Your task to perform on an android device: turn on showing notifications on the lock screen Image 0: 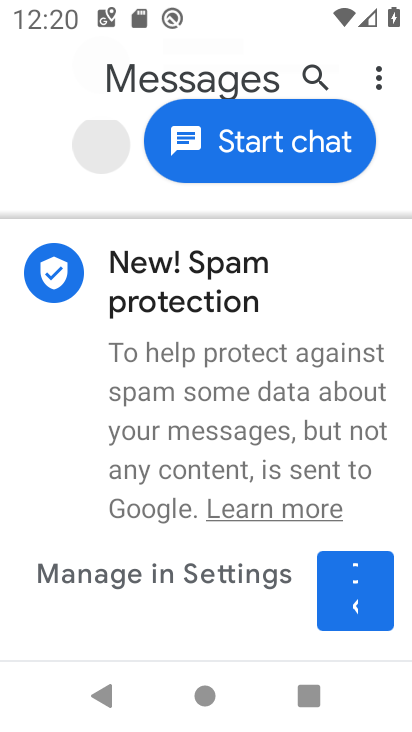
Step 0: press home button
Your task to perform on an android device: turn on showing notifications on the lock screen Image 1: 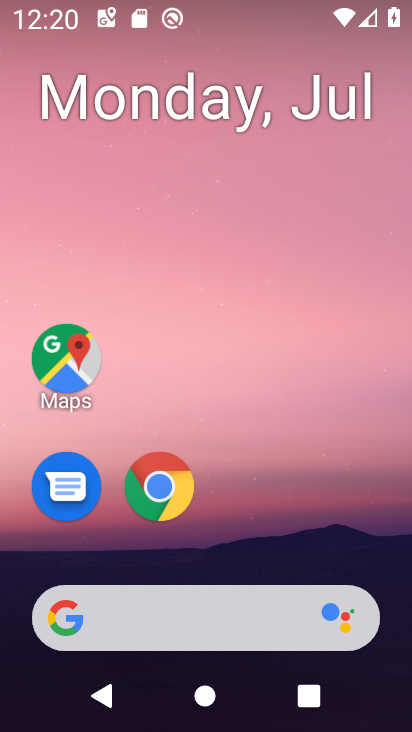
Step 1: drag from (356, 530) to (346, 105)
Your task to perform on an android device: turn on showing notifications on the lock screen Image 2: 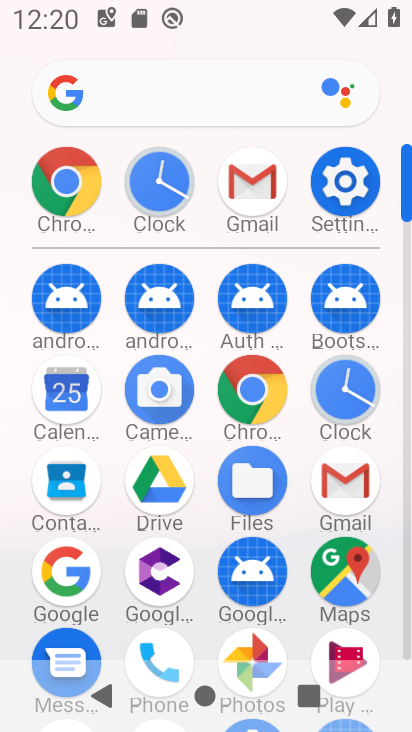
Step 2: click (343, 191)
Your task to perform on an android device: turn on showing notifications on the lock screen Image 3: 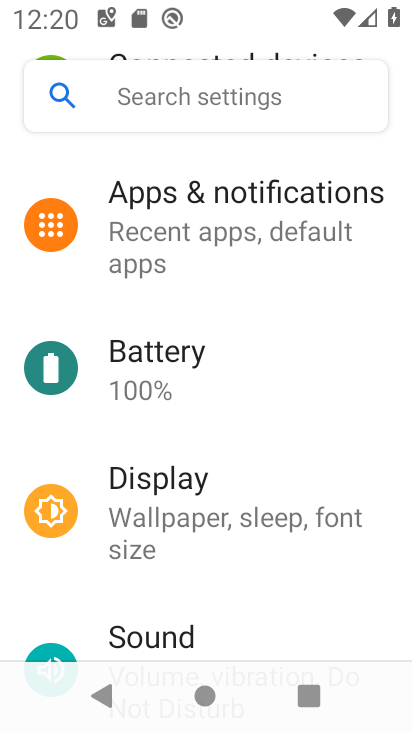
Step 3: drag from (324, 571) to (341, 454)
Your task to perform on an android device: turn on showing notifications on the lock screen Image 4: 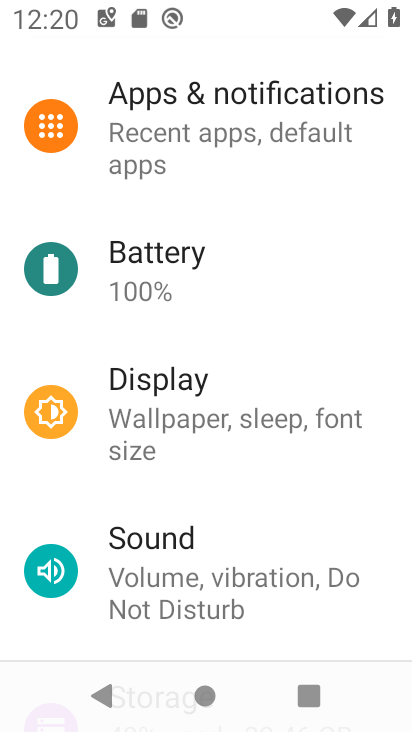
Step 4: drag from (350, 607) to (360, 456)
Your task to perform on an android device: turn on showing notifications on the lock screen Image 5: 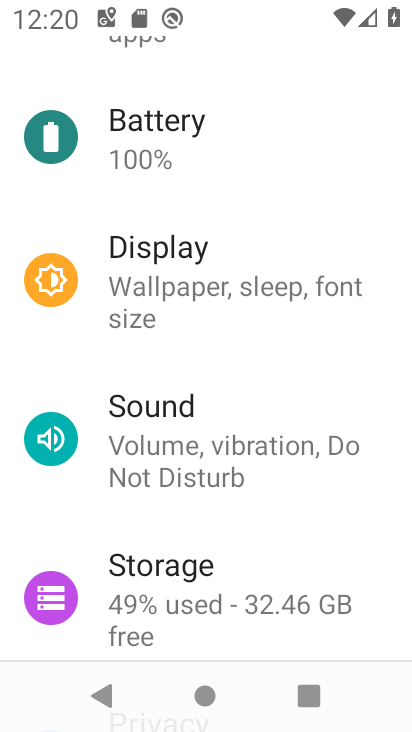
Step 5: drag from (352, 604) to (371, 461)
Your task to perform on an android device: turn on showing notifications on the lock screen Image 6: 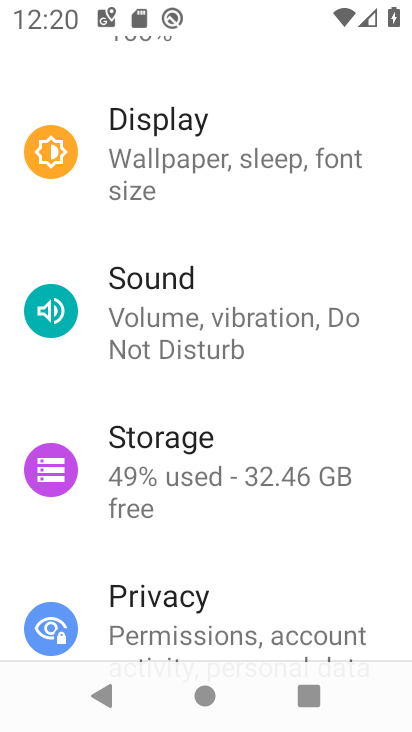
Step 6: drag from (346, 608) to (355, 471)
Your task to perform on an android device: turn on showing notifications on the lock screen Image 7: 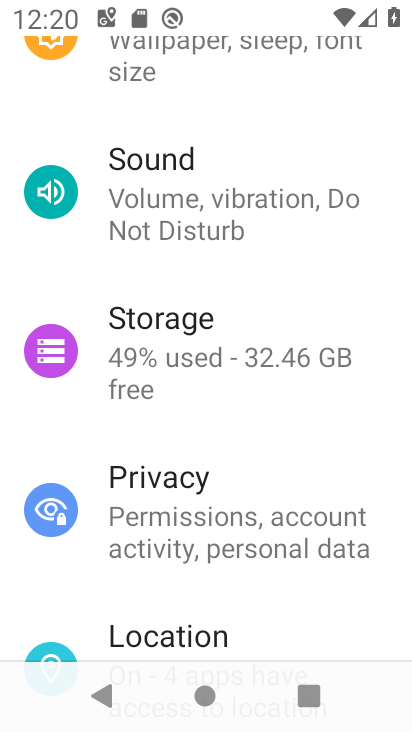
Step 7: drag from (344, 623) to (365, 446)
Your task to perform on an android device: turn on showing notifications on the lock screen Image 8: 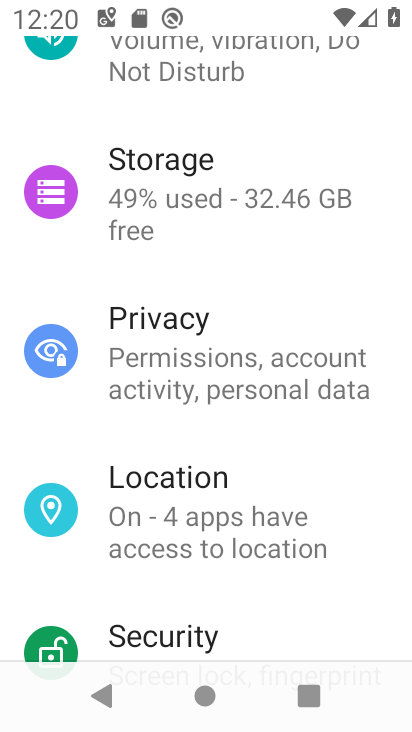
Step 8: drag from (365, 590) to (360, 483)
Your task to perform on an android device: turn on showing notifications on the lock screen Image 9: 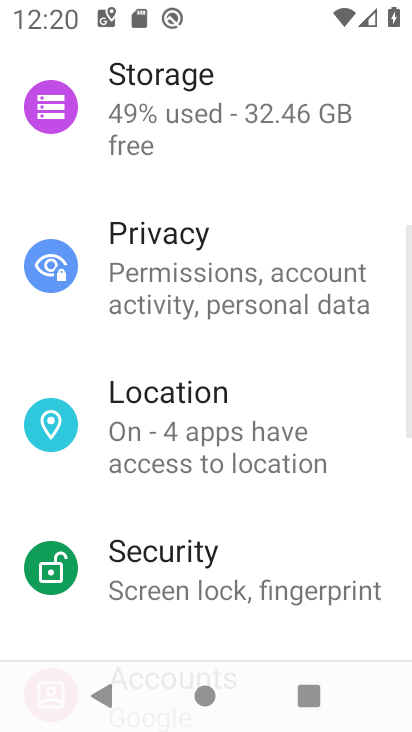
Step 9: drag from (353, 608) to (354, 492)
Your task to perform on an android device: turn on showing notifications on the lock screen Image 10: 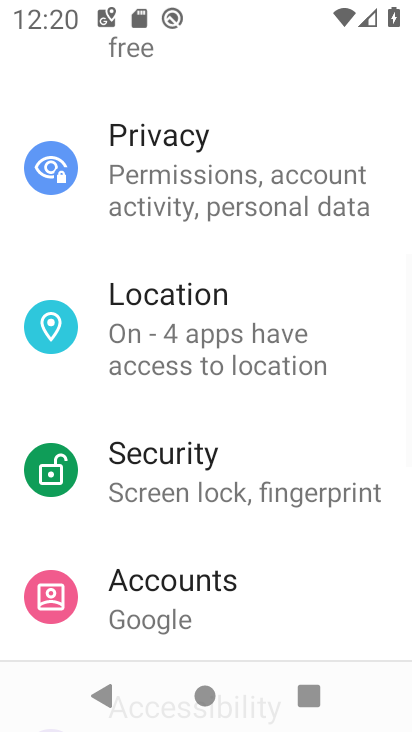
Step 10: drag from (352, 611) to (342, 482)
Your task to perform on an android device: turn on showing notifications on the lock screen Image 11: 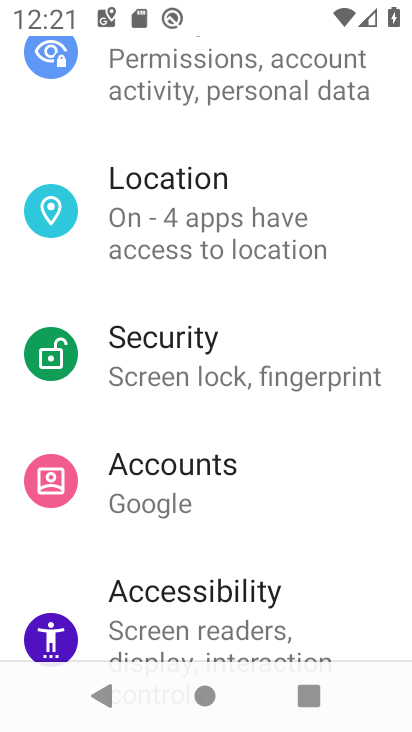
Step 11: drag from (341, 568) to (334, 410)
Your task to perform on an android device: turn on showing notifications on the lock screen Image 12: 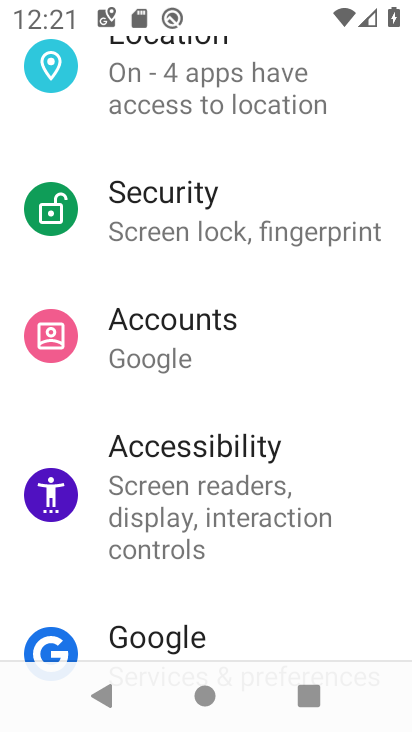
Step 12: drag from (334, 574) to (332, 397)
Your task to perform on an android device: turn on showing notifications on the lock screen Image 13: 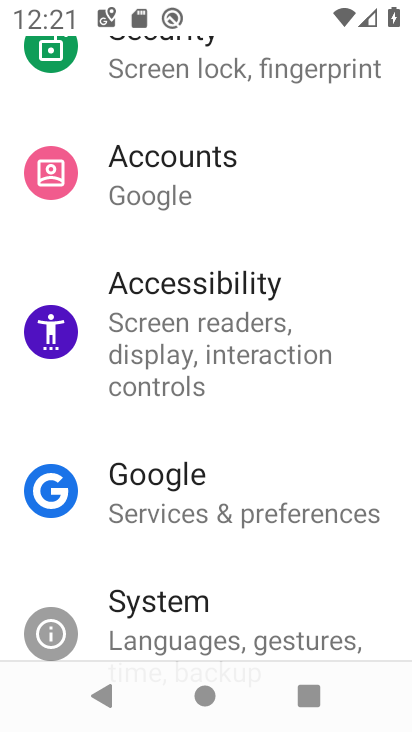
Step 13: drag from (323, 569) to (327, 415)
Your task to perform on an android device: turn on showing notifications on the lock screen Image 14: 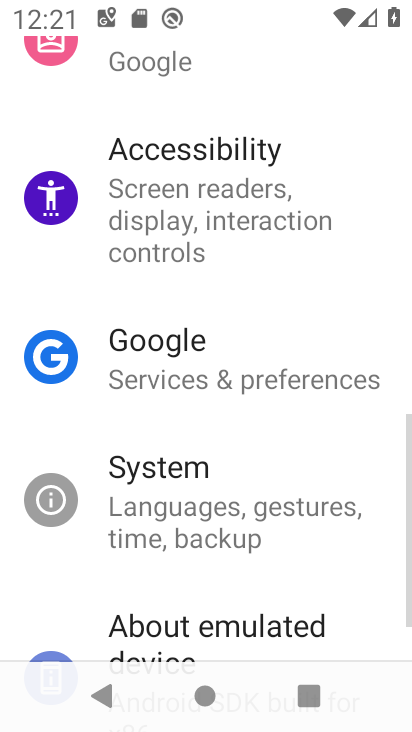
Step 14: click (339, 443)
Your task to perform on an android device: turn on showing notifications on the lock screen Image 15: 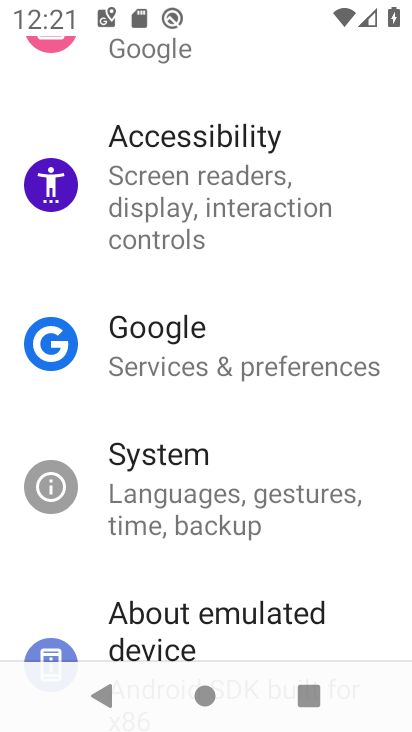
Step 15: drag from (341, 261) to (342, 382)
Your task to perform on an android device: turn on showing notifications on the lock screen Image 16: 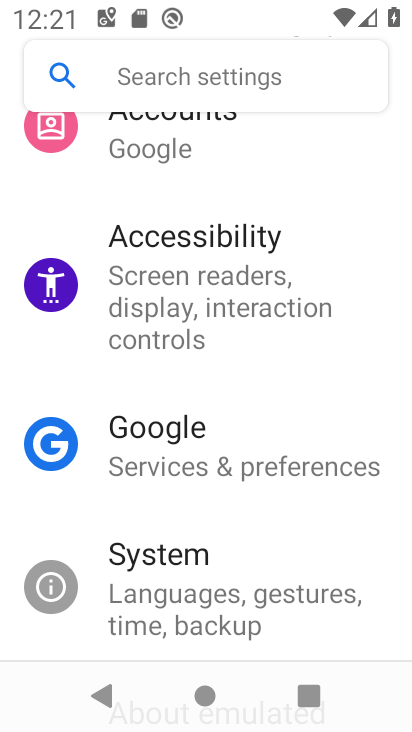
Step 16: drag from (356, 224) to (359, 363)
Your task to perform on an android device: turn on showing notifications on the lock screen Image 17: 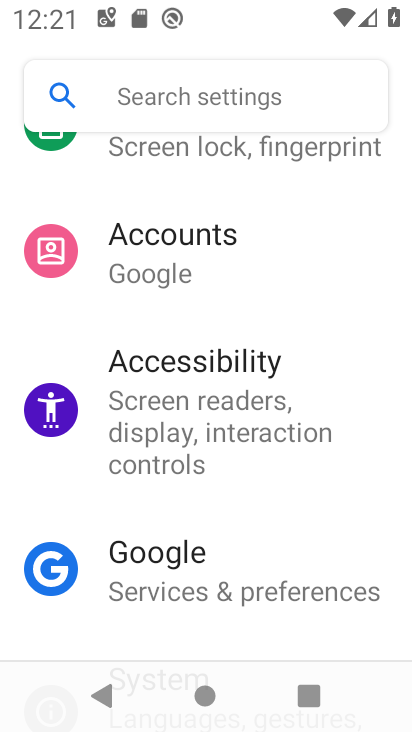
Step 17: drag from (354, 197) to (372, 422)
Your task to perform on an android device: turn on showing notifications on the lock screen Image 18: 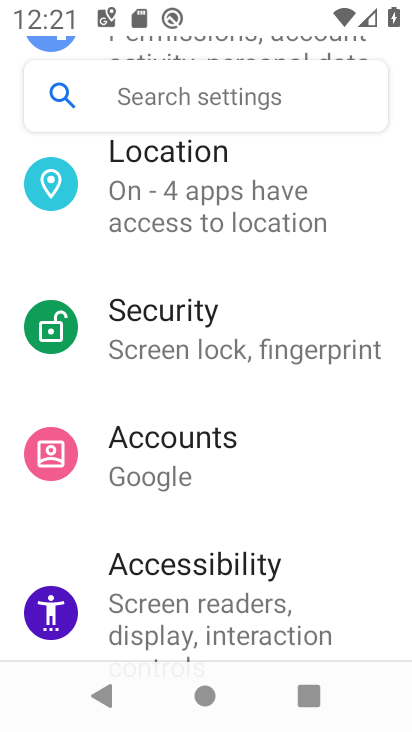
Step 18: drag from (372, 214) to (383, 363)
Your task to perform on an android device: turn on showing notifications on the lock screen Image 19: 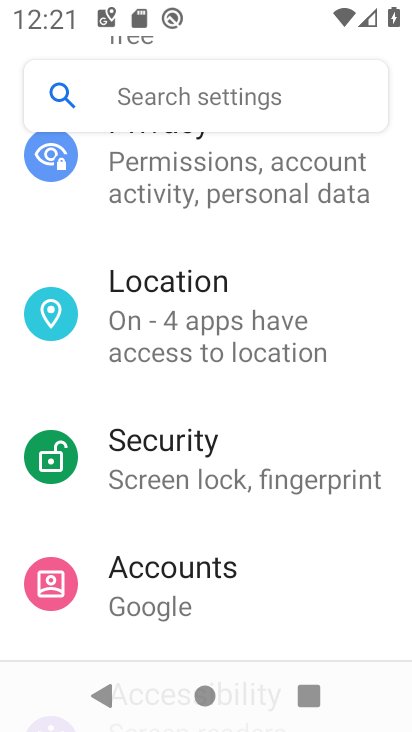
Step 19: drag from (362, 146) to (362, 422)
Your task to perform on an android device: turn on showing notifications on the lock screen Image 20: 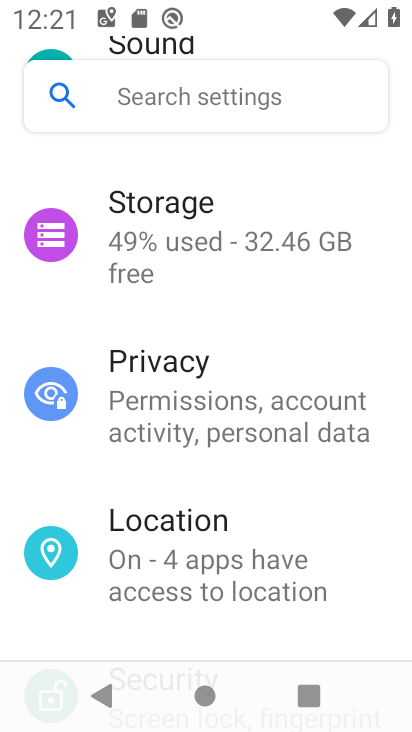
Step 20: drag from (341, 179) to (339, 393)
Your task to perform on an android device: turn on showing notifications on the lock screen Image 21: 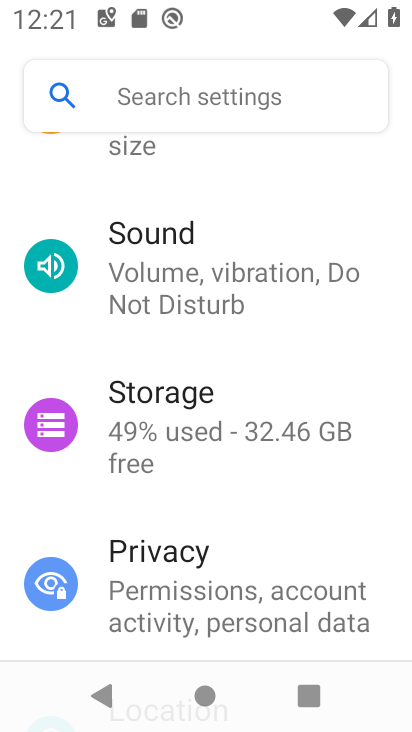
Step 21: drag from (336, 159) to (340, 352)
Your task to perform on an android device: turn on showing notifications on the lock screen Image 22: 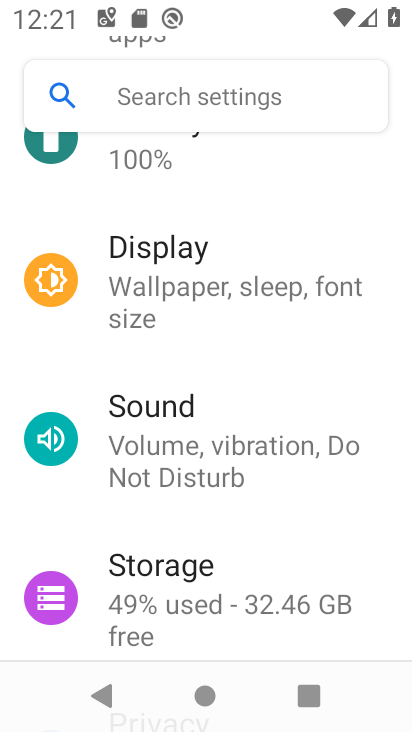
Step 22: drag from (344, 162) to (334, 361)
Your task to perform on an android device: turn on showing notifications on the lock screen Image 23: 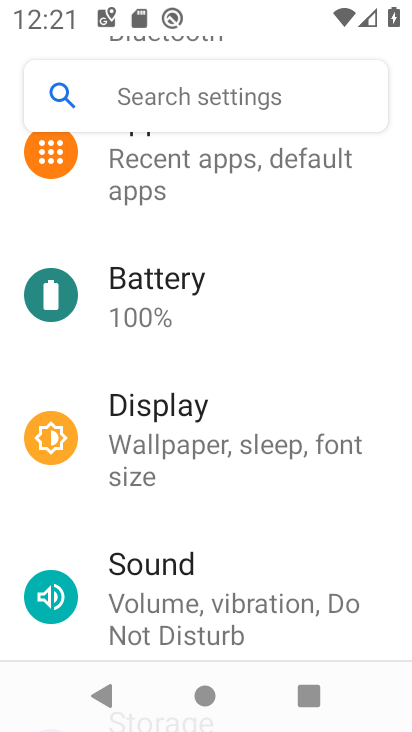
Step 23: drag from (337, 183) to (327, 374)
Your task to perform on an android device: turn on showing notifications on the lock screen Image 24: 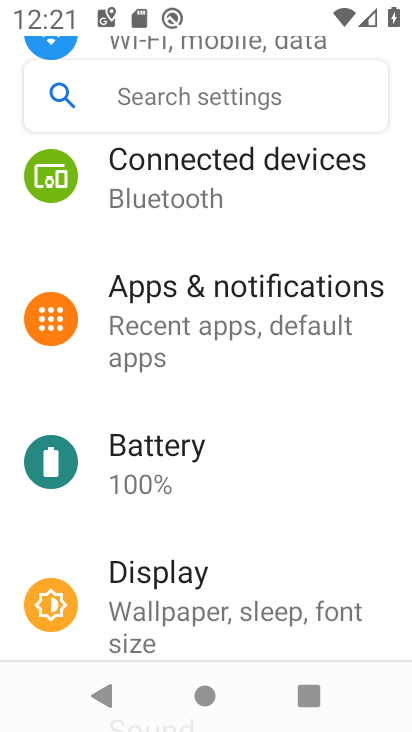
Step 24: click (296, 304)
Your task to perform on an android device: turn on showing notifications on the lock screen Image 25: 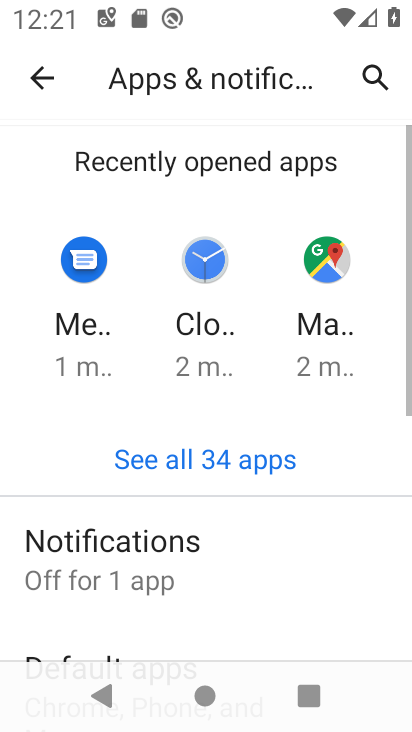
Step 25: drag from (255, 552) to (256, 392)
Your task to perform on an android device: turn on showing notifications on the lock screen Image 26: 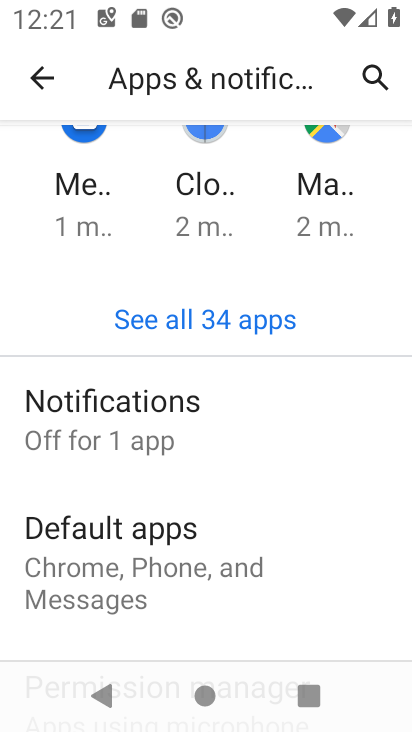
Step 26: click (192, 432)
Your task to perform on an android device: turn on showing notifications on the lock screen Image 27: 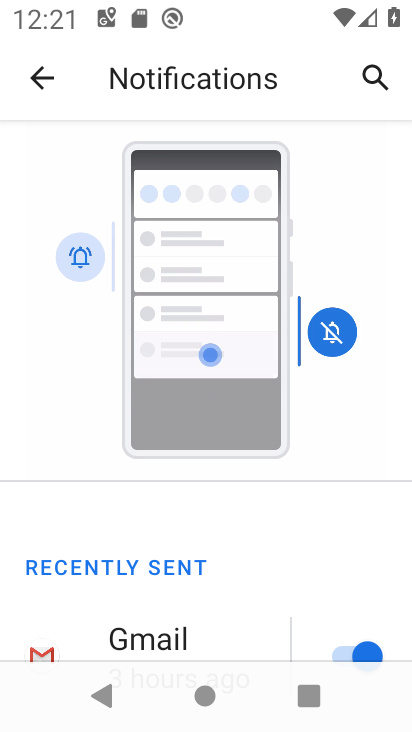
Step 27: drag from (226, 568) to (228, 387)
Your task to perform on an android device: turn on showing notifications on the lock screen Image 28: 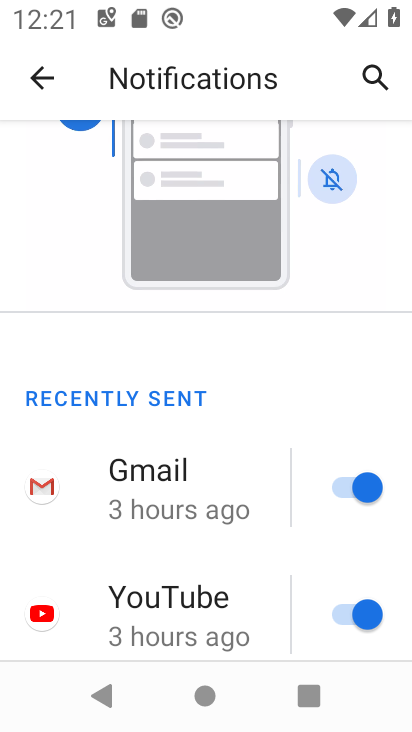
Step 28: drag from (246, 611) to (242, 341)
Your task to perform on an android device: turn on showing notifications on the lock screen Image 29: 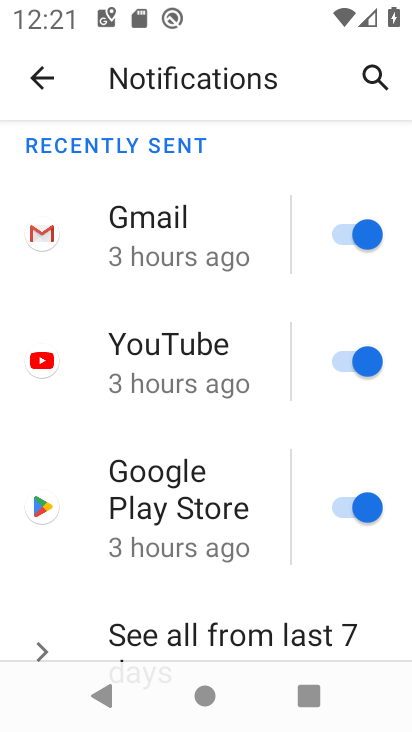
Step 29: drag from (251, 566) to (243, 402)
Your task to perform on an android device: turn on showing notifications on the lock screen Image 30: 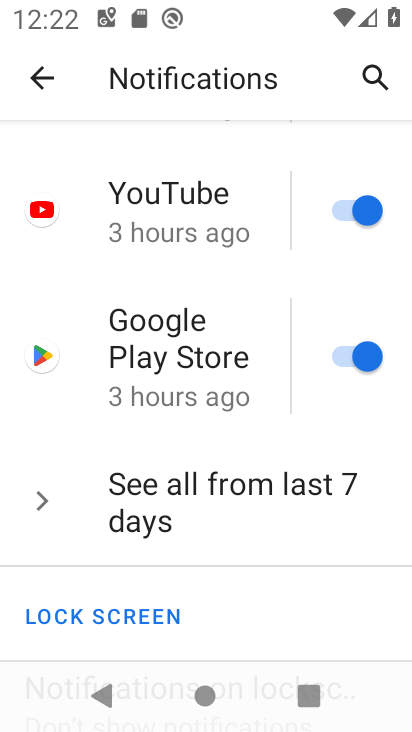
Step 30: drag from (242, 581) to (241, 408)
Your task to perform on an android device: turn on showing notifications on the lock screen Image 31: 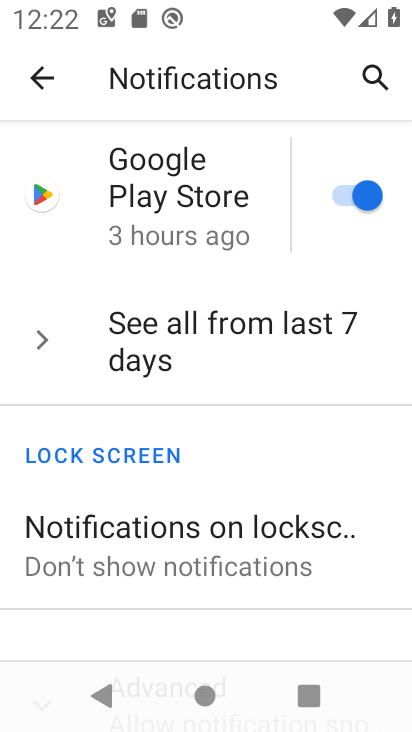
Step 31: drag from (243, 599) to (246, 380)
Your task to perform on an android device: turn on showing notifications on the lock screen Image 32: 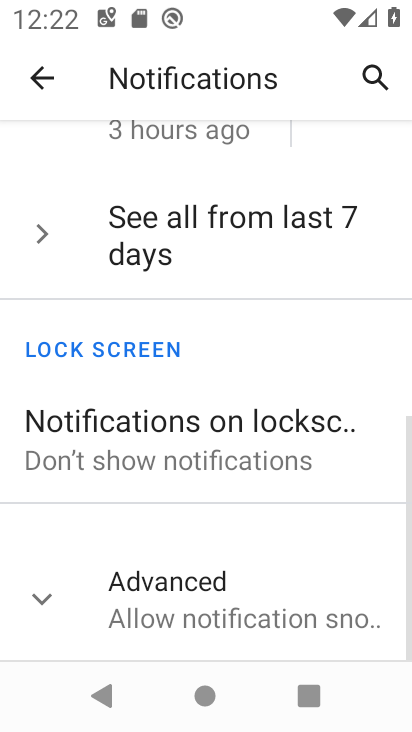
Step 32: click (250, 425)
Your task to perform on an android device: turn on showing notifications on the lock screen Image 33: 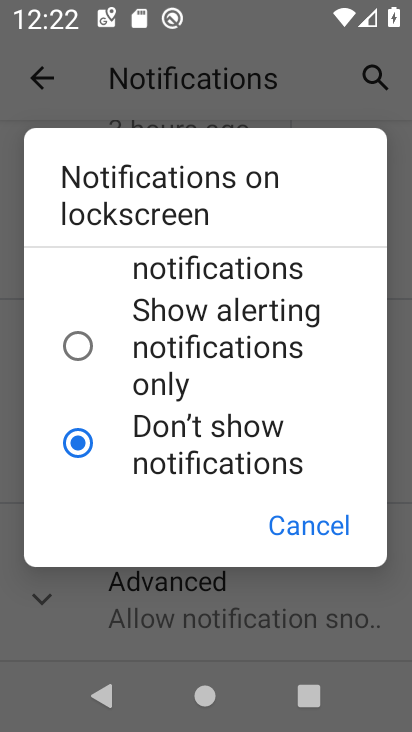
Step 33: click (110, 334)
Your task to perform on an android device: turn on showing notifications on the lock screen Image 34: 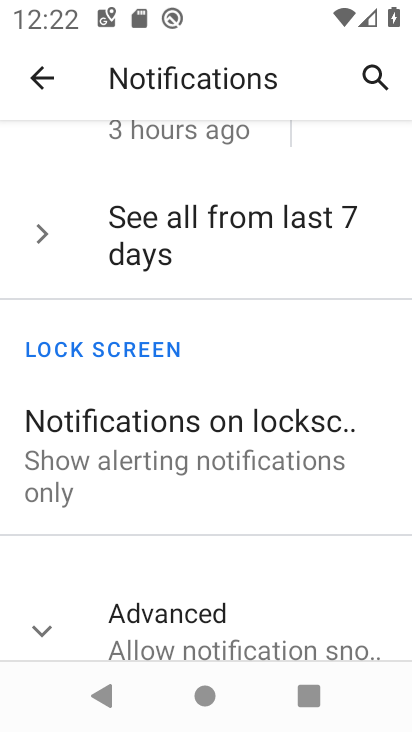
Step 34: task complete